Your task to perform on an android device: turn off wifi Image 0: 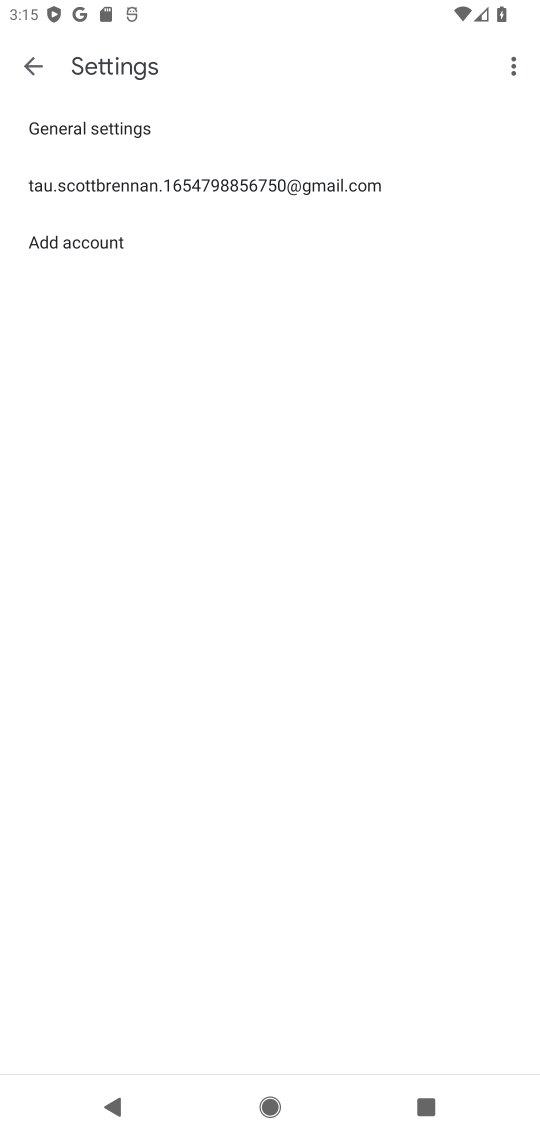
Step 0: press home button
Your task to perform on an android device: turn off wifi Image 1: 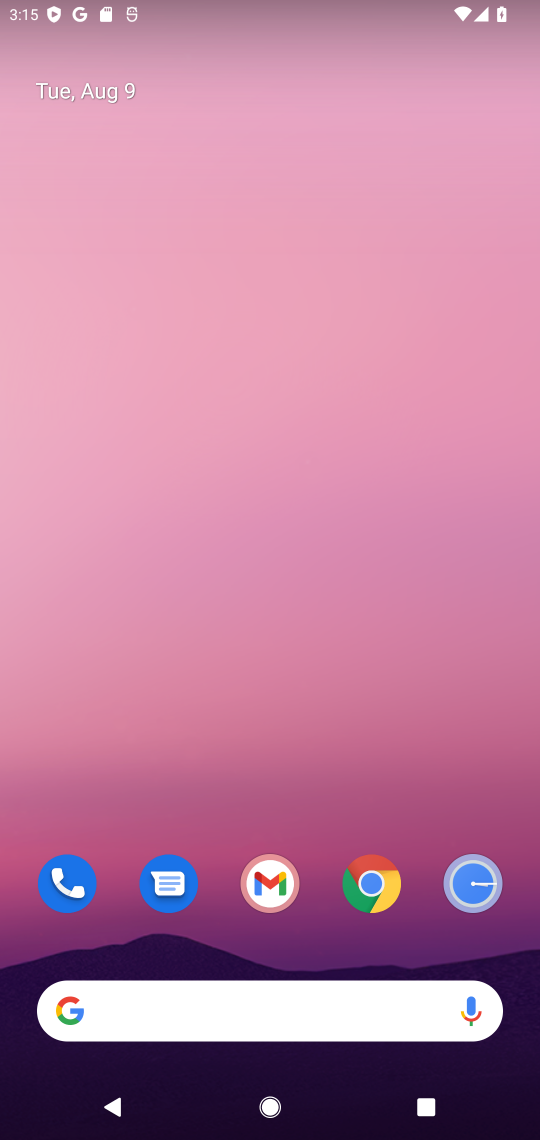
Step 1: drag from (425, 928) to (379, 53)
Your task to perform on an android device: turn off wifi Image 2: 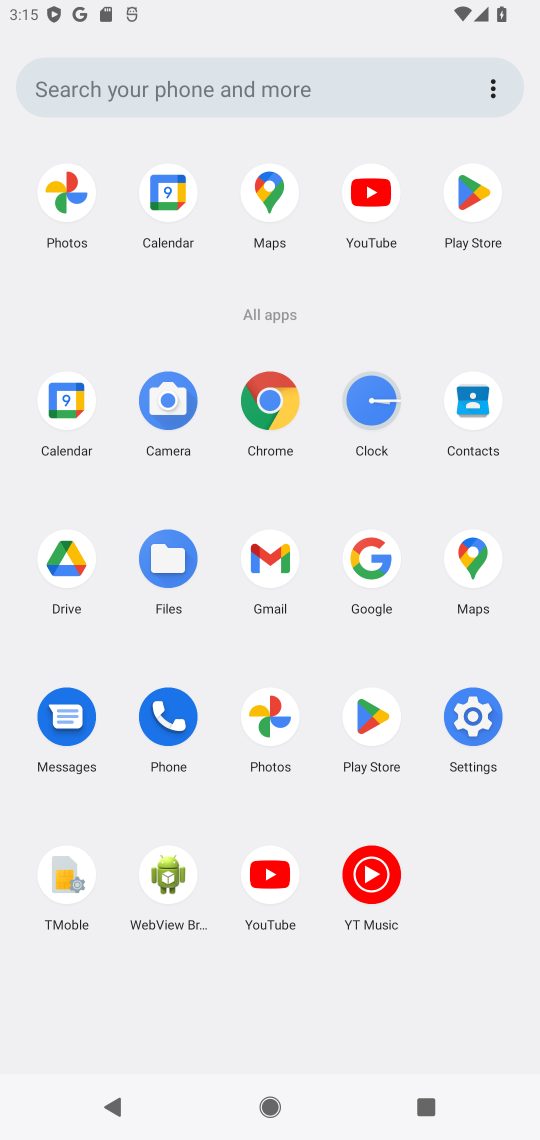
Step 2: click (475, 720)
Your task to perform on an android device: turn off wifi Image 3: 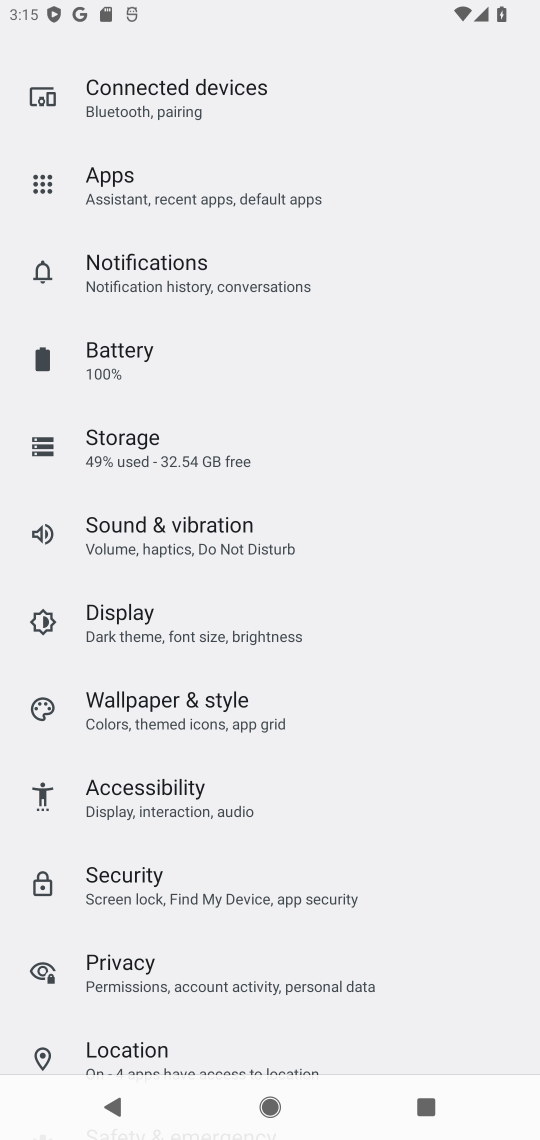
Step 3: drag from (399, 201) to (384, 702)
Your task to perform on an android device: turn off wifi Image 4: 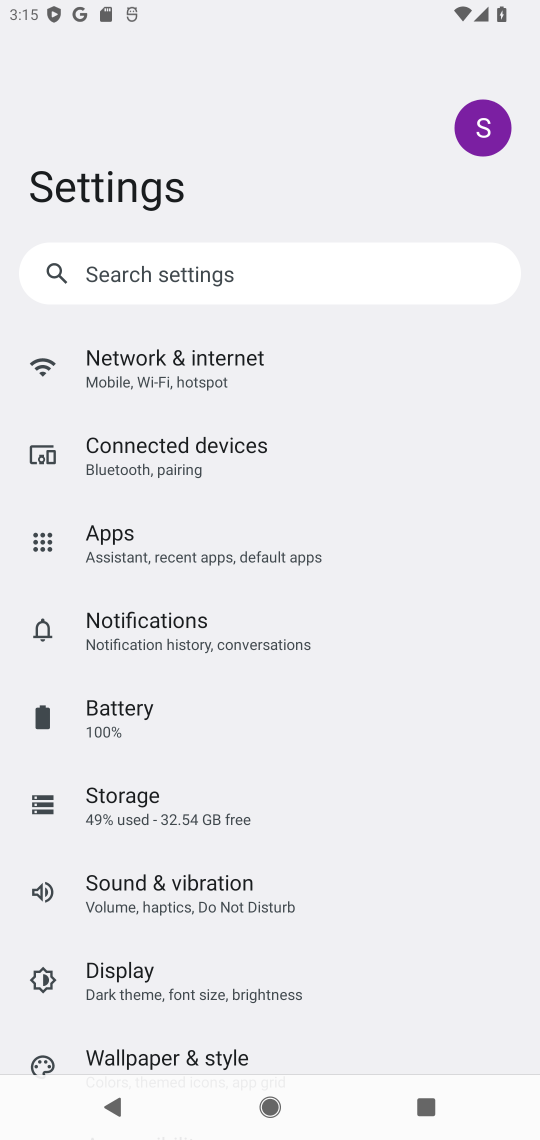
Step 4: click (131, 371)
Your task to perform on an android device: turn off wifi Image 5: 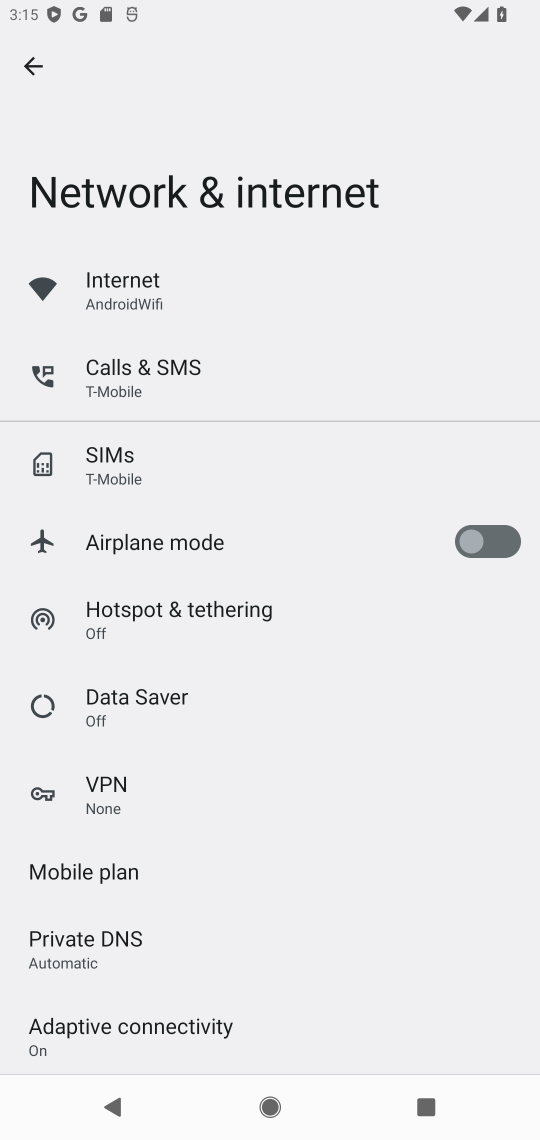
Step 5: click (137, 276)
Your task to perform on an android device: turn off wifi Image 6: 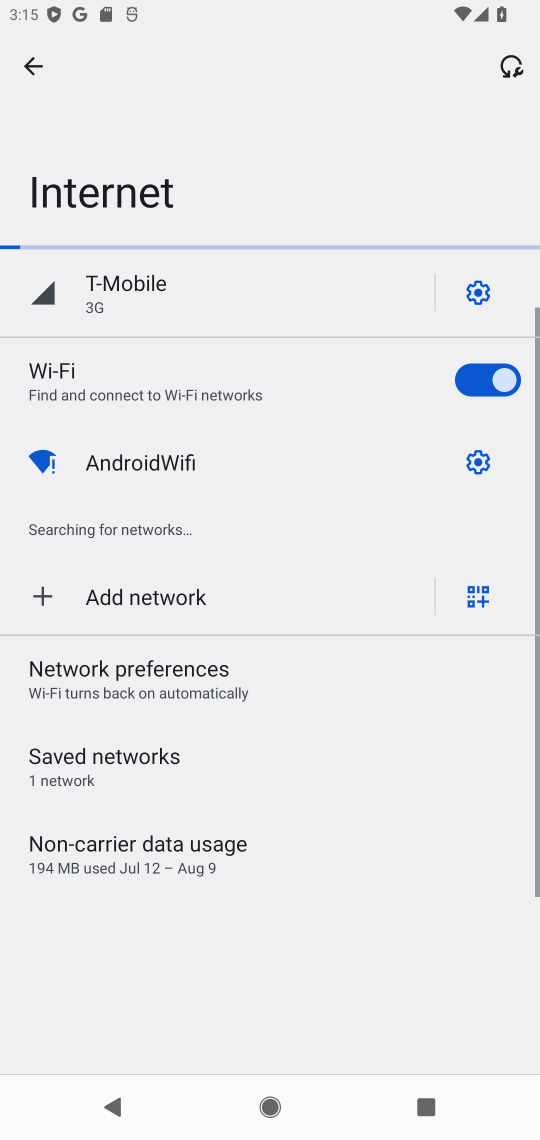
Step 6: click (467, 366)
Your task to perform on an android device: turn off wifi Image 7: 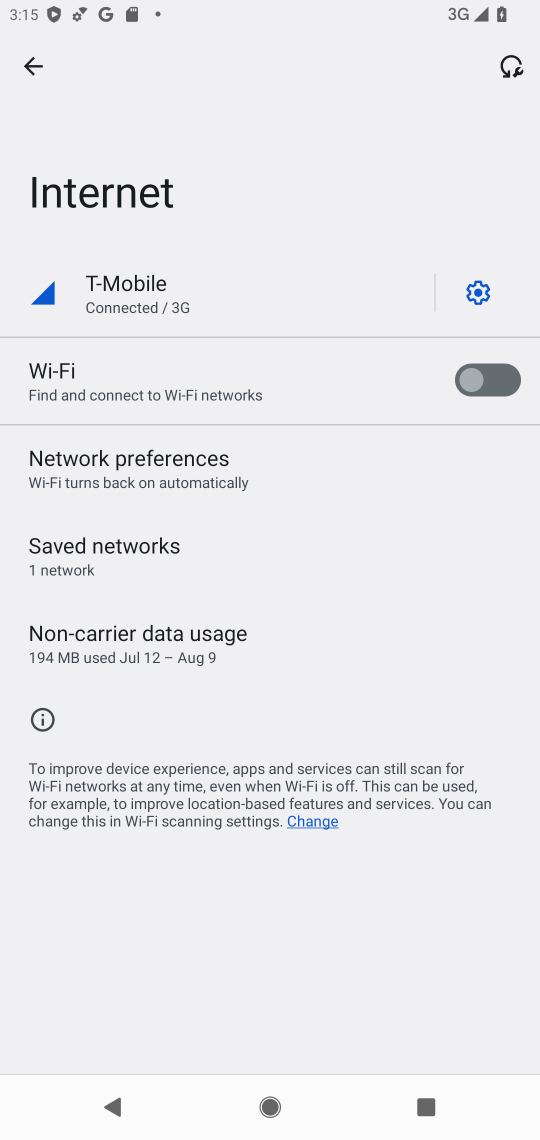
Step 7: task complete